Your task to perform on an android device: turn on wifi Image 0: 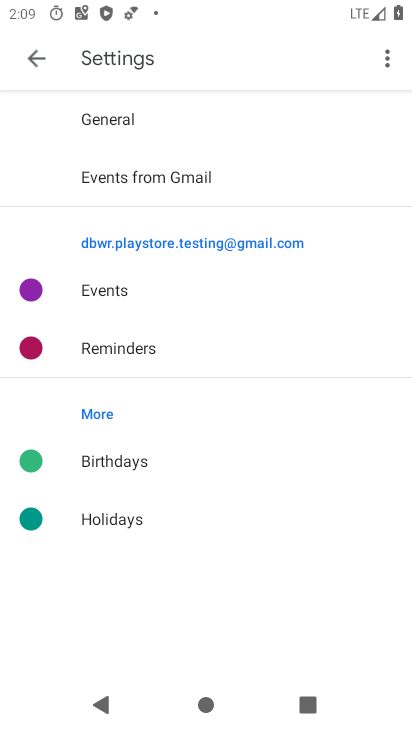
Step 0: press home button
Your task to perform on an android device: turn on wifi Image 1: 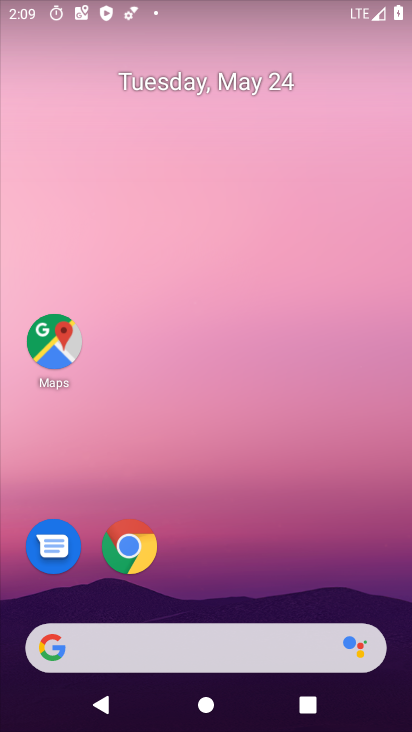
Step 1: drag from (204, 646) to (204, 92)
Your task to perform on an android device: turn on wifi Image 2: 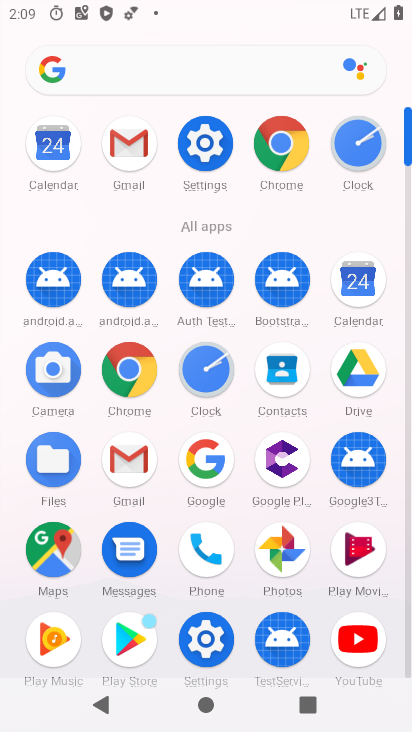
Step 2: click (201, 154)
Your task to perform on an android device: turn on wifi Image 3: 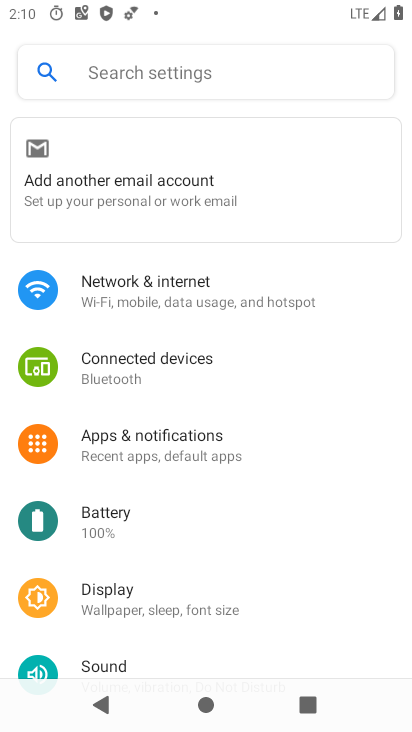
Step 3: click (168, 295)
Your task to perform on an android device: turn on wifi Image 4: 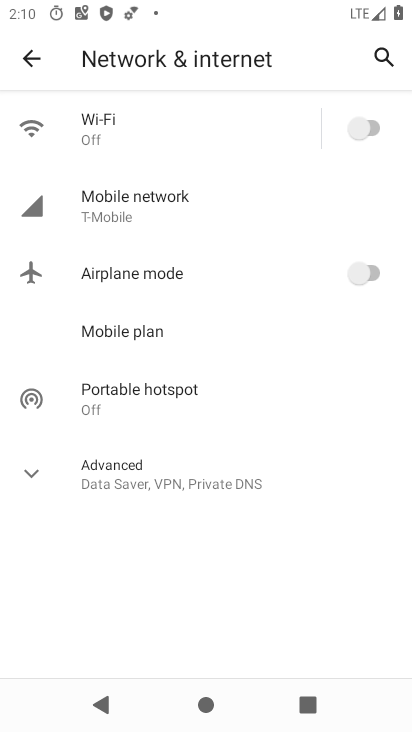
Step 4: click (357, 133)
Your task to perform on an android device: turn on wifi Image 5: 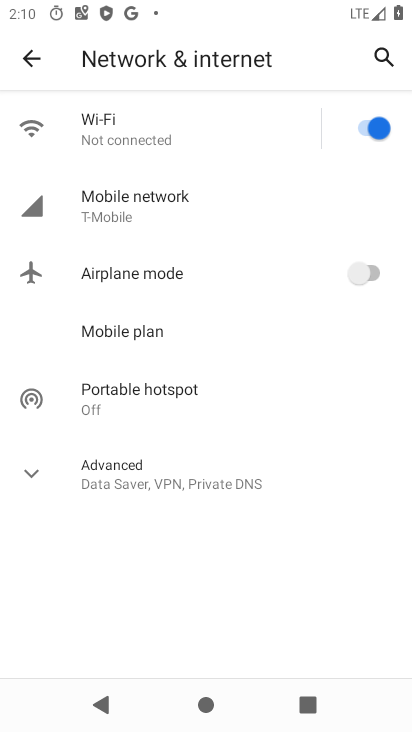
Step 5: task complete